Your task to perform on an android device: Check the news Image 0: 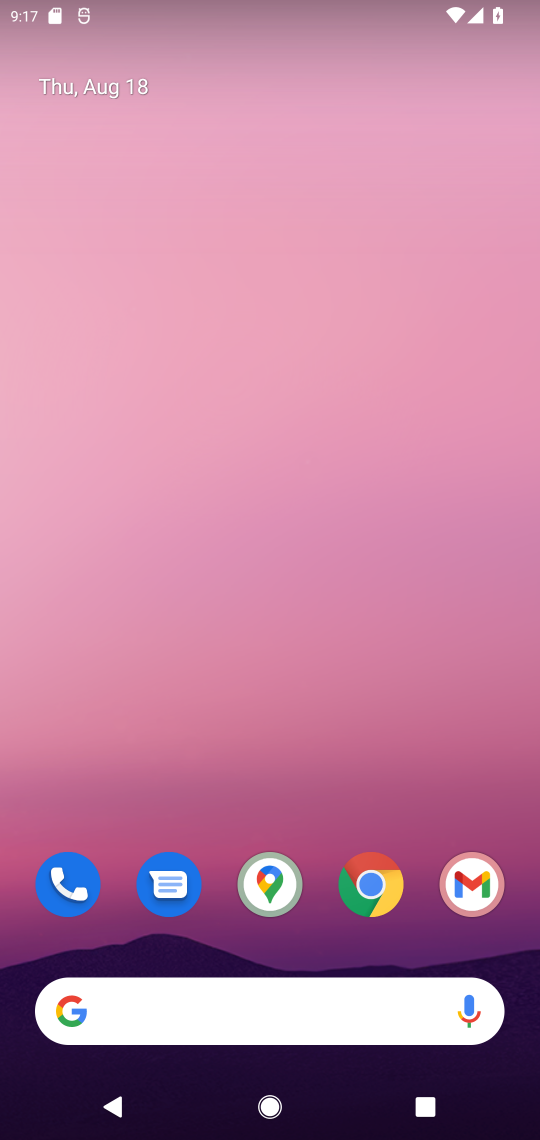
Step 0: click (144, 1018)
Your task to perform on an android device: Check the news Image 1: 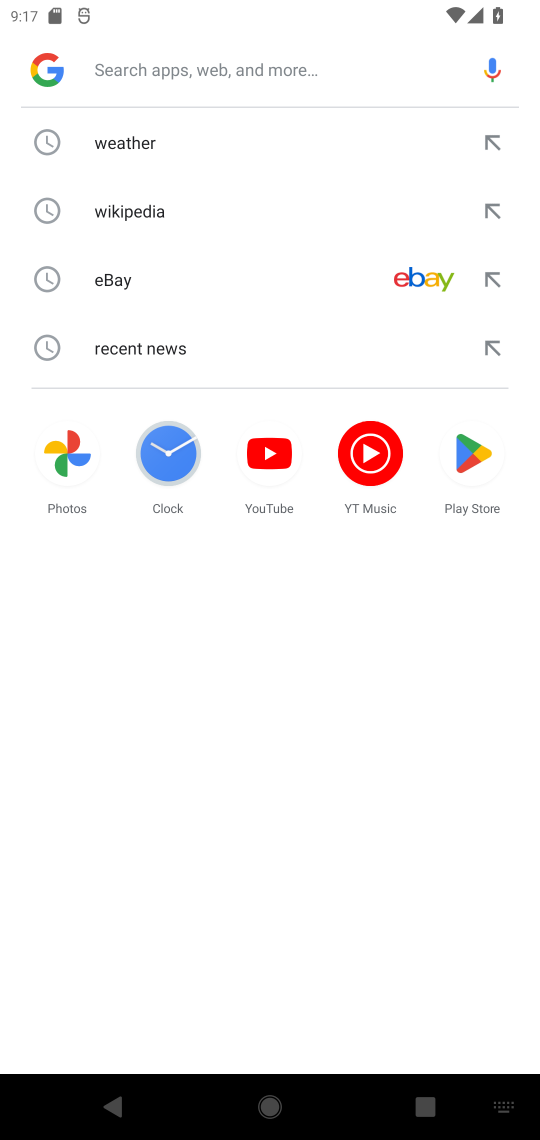
Step 1: click (49, 73)
Your task to perform on an android device: Check the news Image 2: 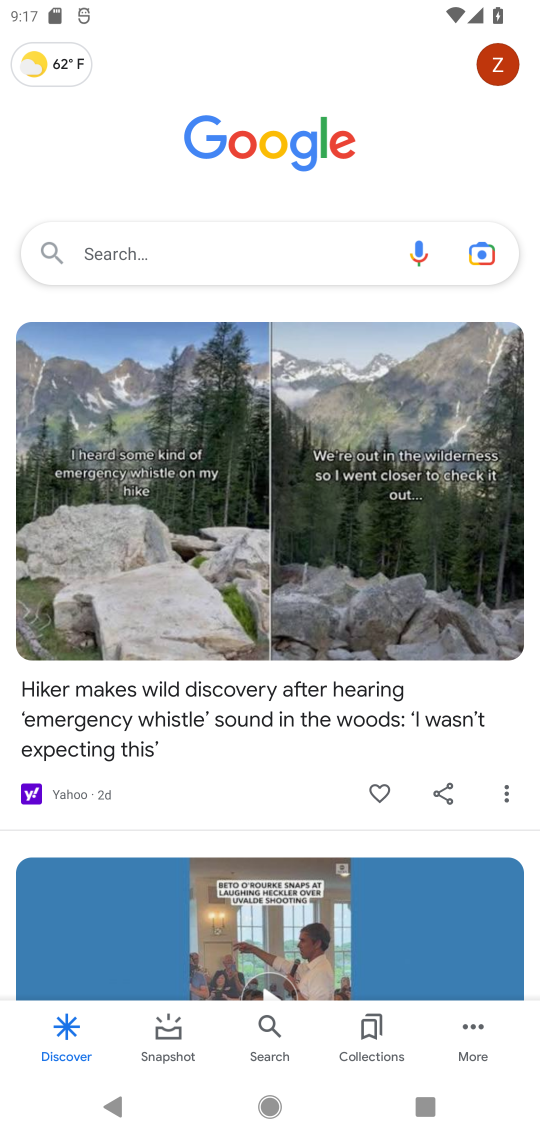
Step 2: task complete